Your task to perform on an android device: Open Google Chrome and click the shortcut for Amazon.com Image 0: 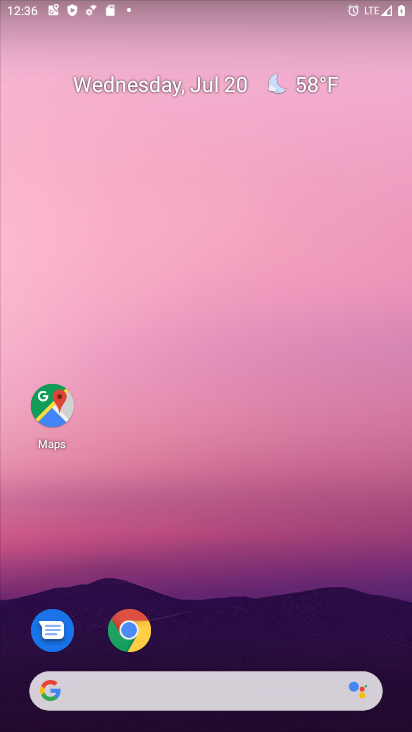
Step 0: drag from (255, 674) to (352, 176)
Your task to perform on an android device: Open Google Chrome and click the shortcut for Amazon.com Image 1: 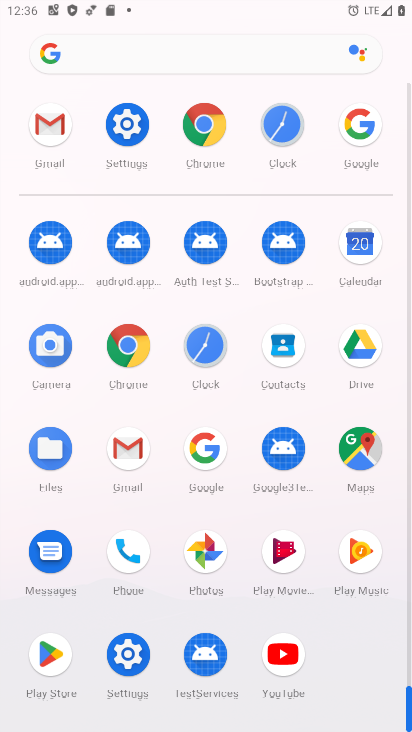
Step 1: click (209, 130)
Your task to perform on an android device: Open Google Chrome and click the shortcut for Amazon.com Image 2: 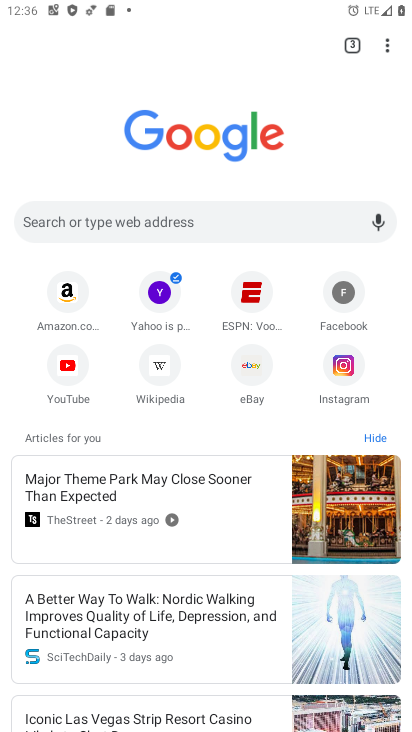
Step 2: click (60, 290)
Your task to perform on an android device: Open Google Chrome and click the shortcut for Amazon.com Image 3: 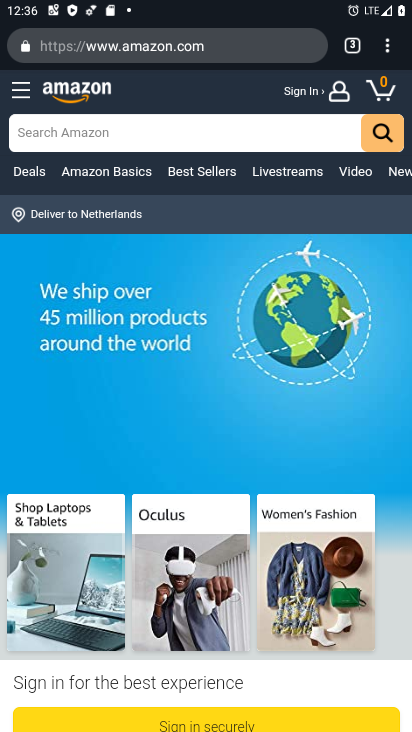
Step 3: task complete